Your task to perform on an android device: clear history in the chrome app Image 0: 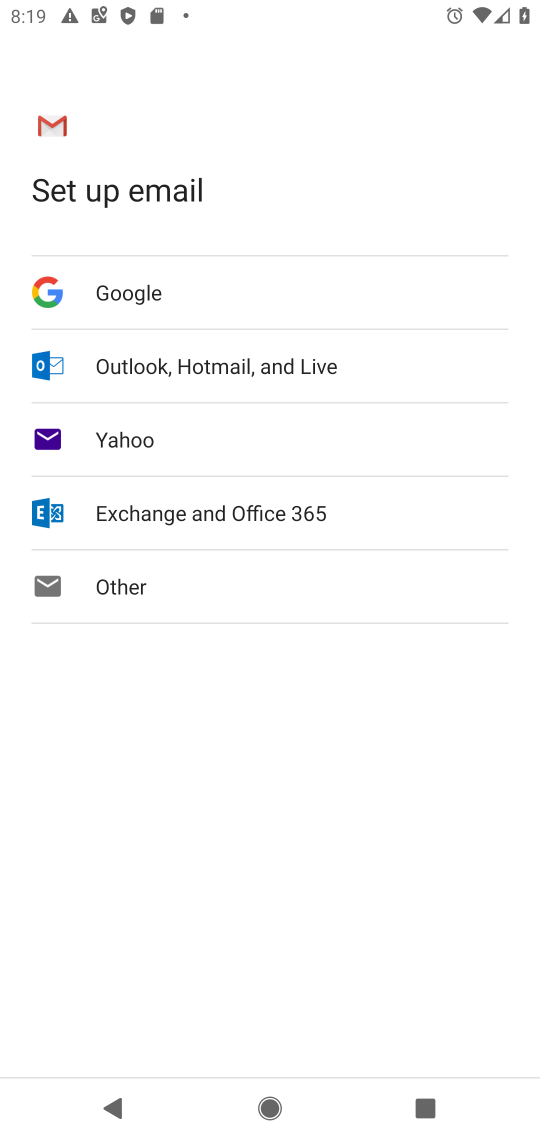
Step 0: press home button
Your task to perform on an android device: clear history in the chrome app Image 1: 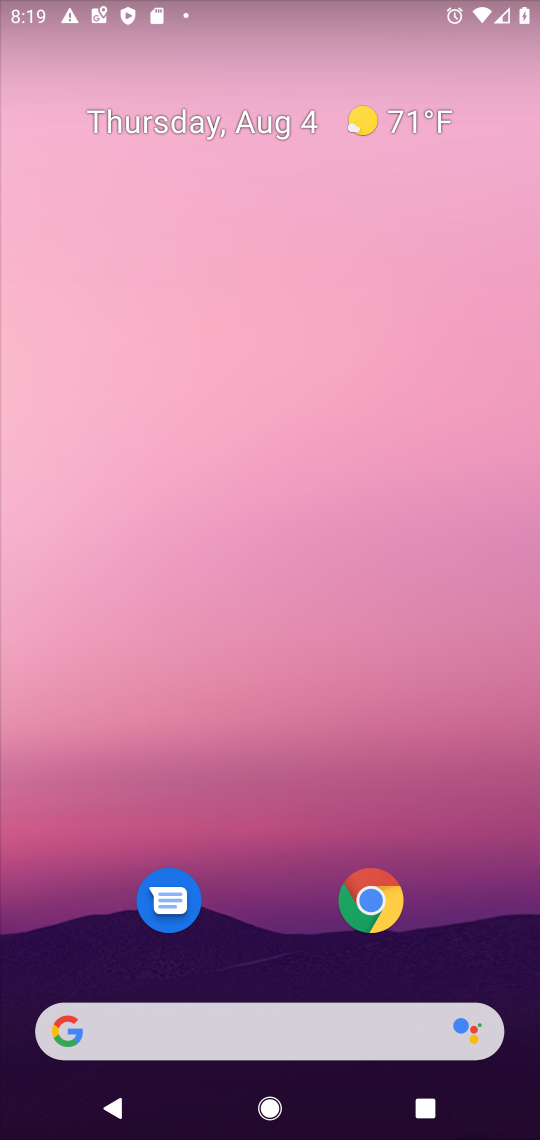
Step 1: click (371, 901)
Your task to perform on an android device: clear history in the chrome app Image 2: 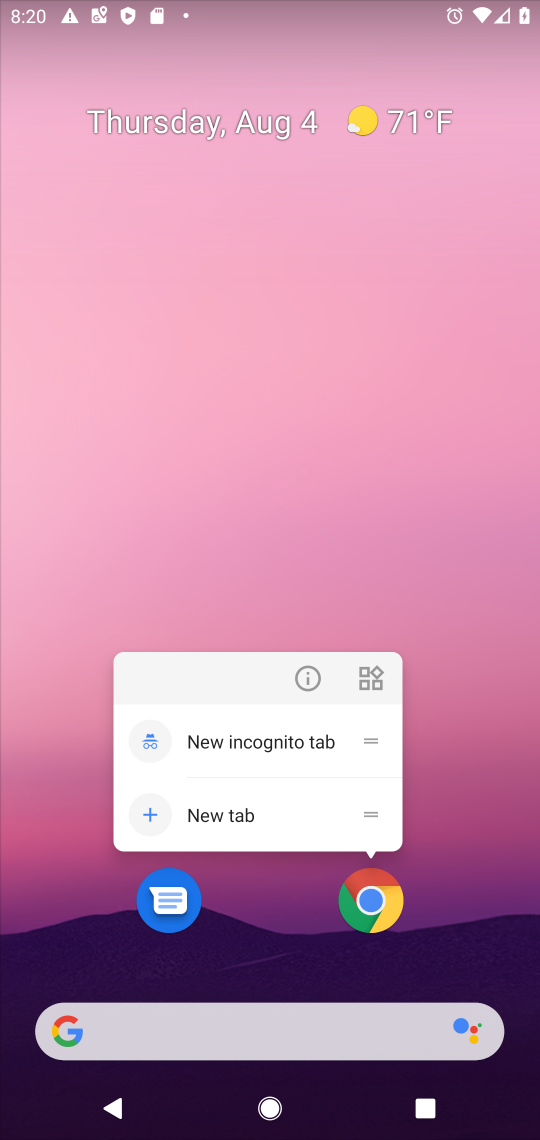
Step 2: click (371, 901)
Your task to perform on an android device: clear history in the chrome app Image 3: 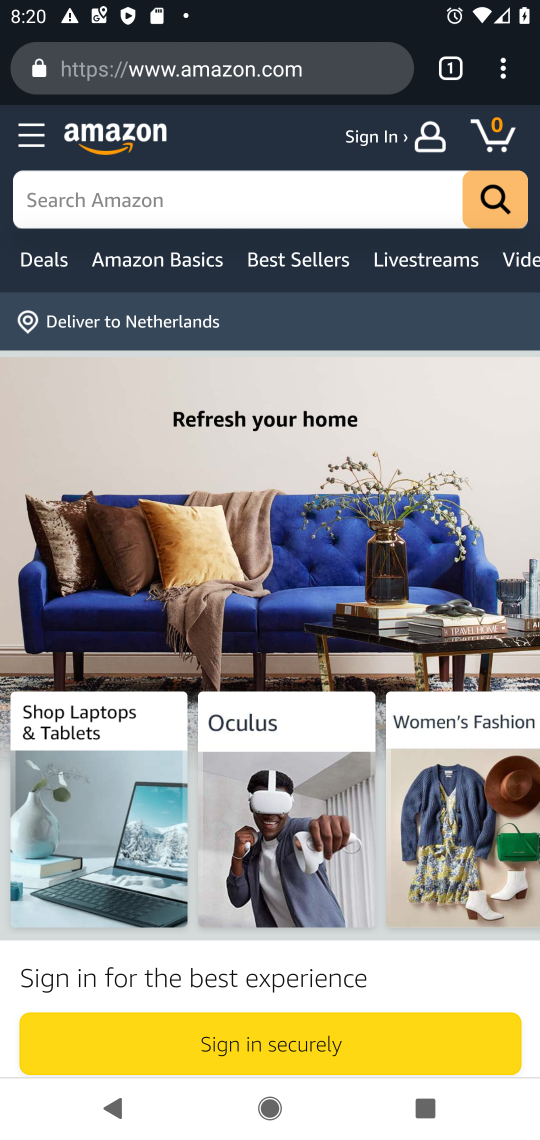
Step 3: drag from (501, 70) to (311, 454)
Your task to perform on an android device: clear history in the chrome app Image 4: 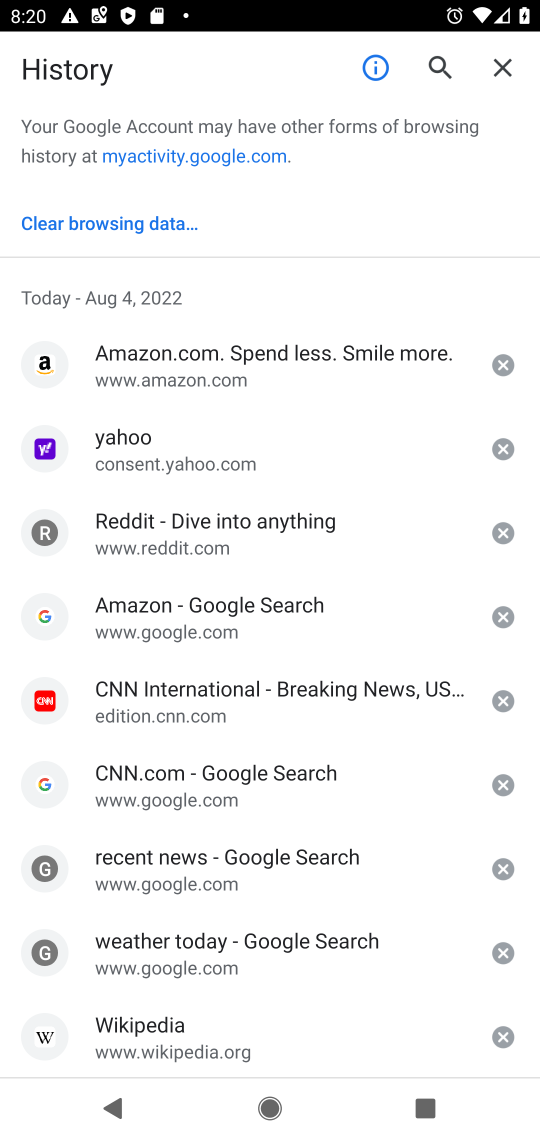
Step 4: click (117, 221)
Your task to perform on an android device: clear history in the chrome app Image 5: 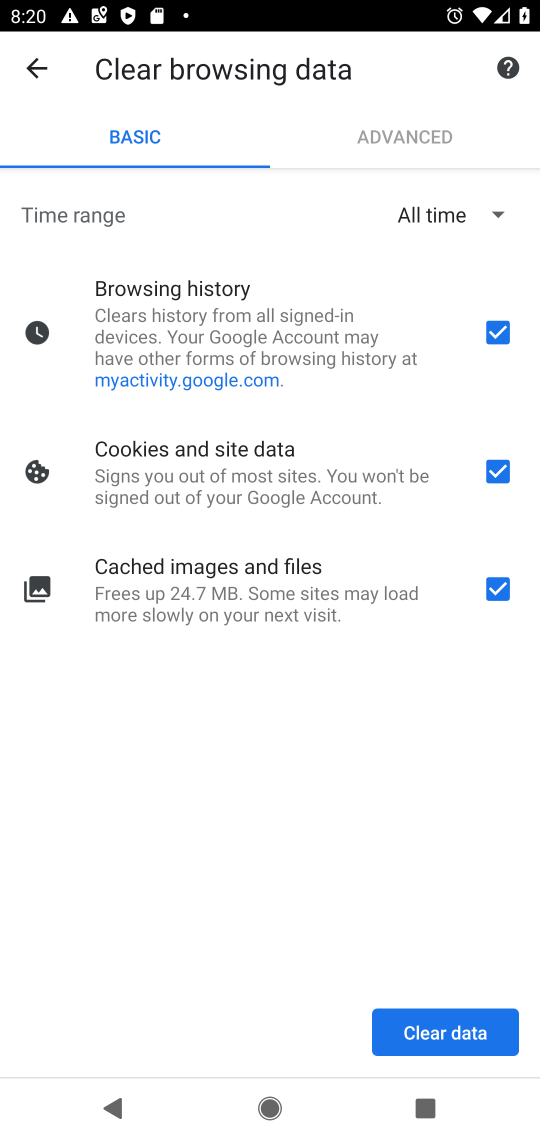
Step 5: click (447, 1030)
Your task to perform on an android device: clear history in the chrome app Image 6: 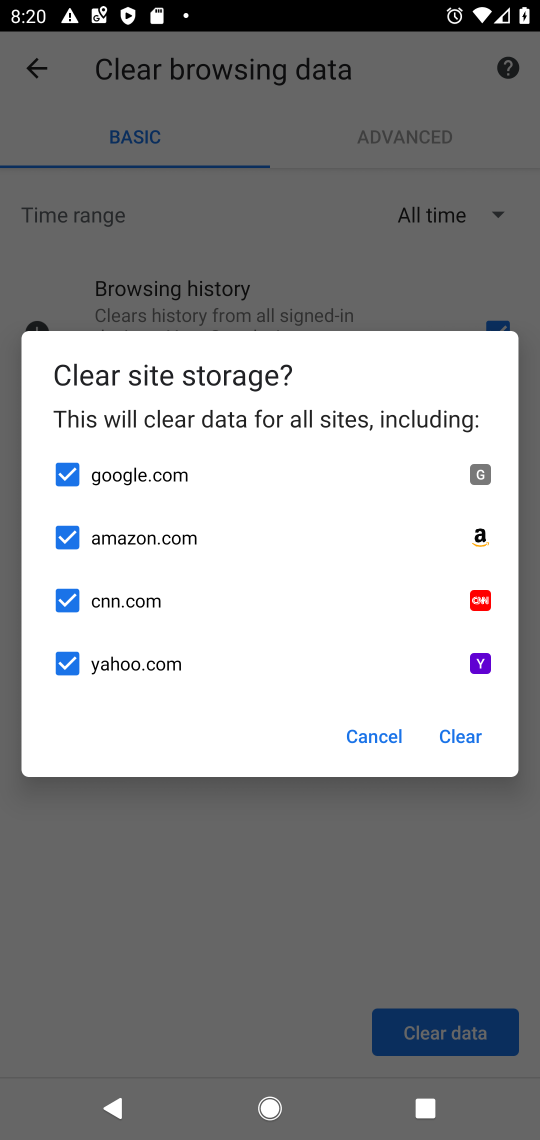
Step 6: click (480, 739)
Your task to perform on an android device: clear history in the chrome app Image 7: 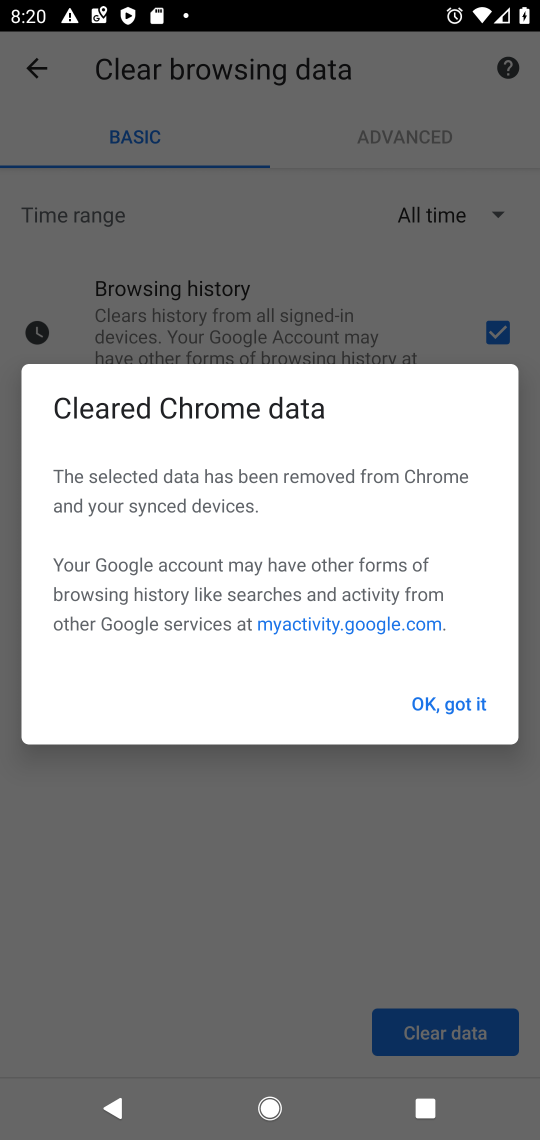
Step 7: click (434, 707)
Your task to perform on an android device: clear history in the chrome app Image 8: 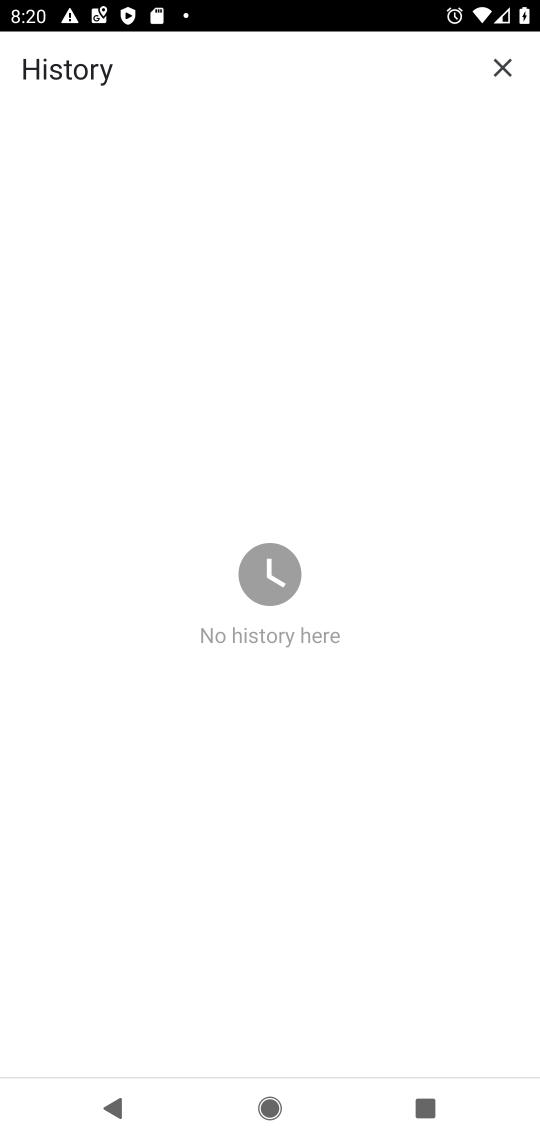
Step 8: task complete